Your task to perform on an android device: Open the web browser Image 0: 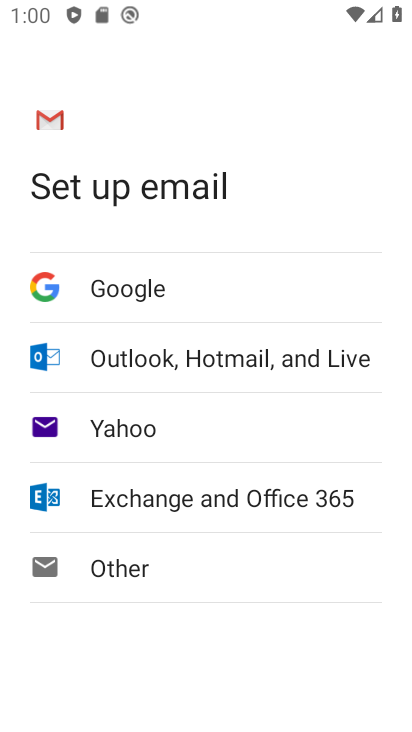
Step 0: press home button
Your task to perform on an android device: Open the web browser Image 1: 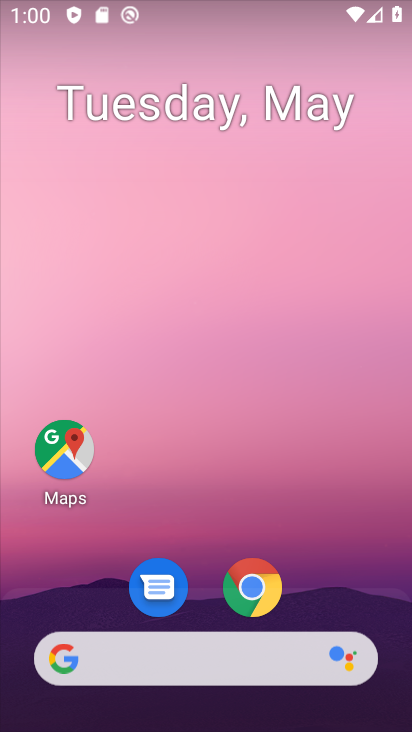
Step 1: click (173, 677)
Your task to perform on an android device: Open the web browser Image 2: 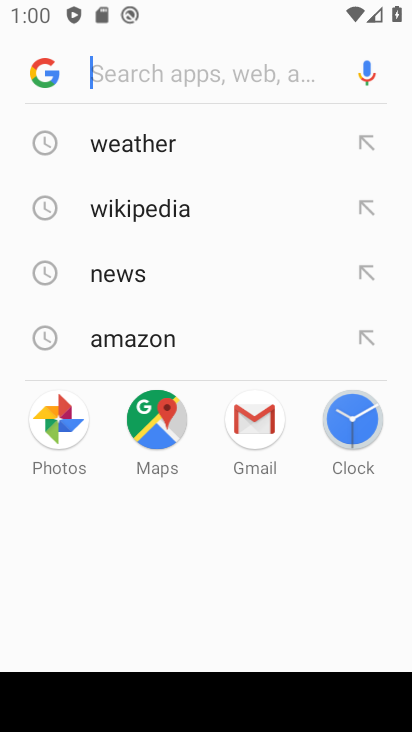
Step 2: task complete